Your task to perform on an android device: turn on sleep mode Image 0: 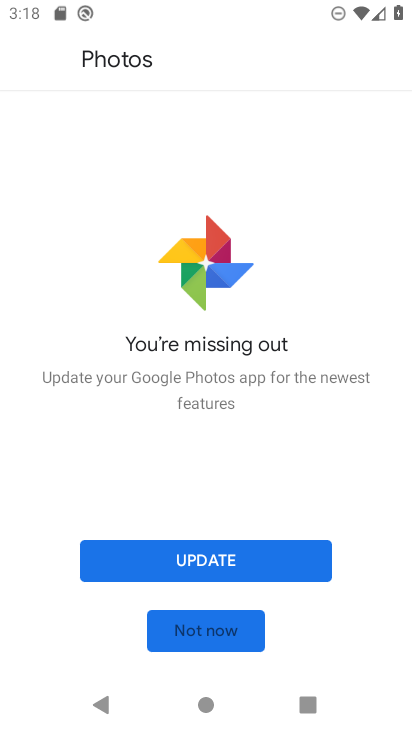
Step 0: press home button
Your task to perform on an android device: turn on sleep mode Image 1: 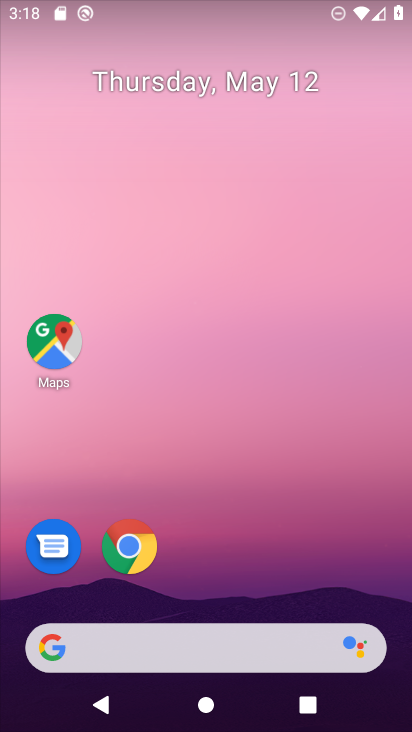
Step 1: drag from (265, 515) to (254, 273)
Your task to perform on an android device: turn on sleep mode Image 2: 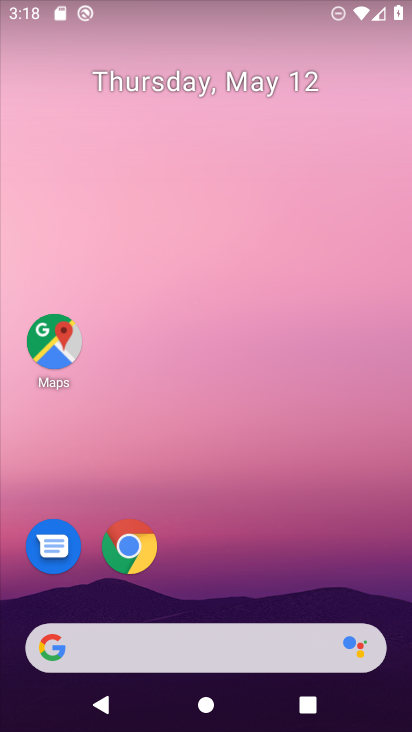
Step 2: drag from (245, 551) to (245, 245)
Your task to perform on an android device: turn on sleep mode Image 3: 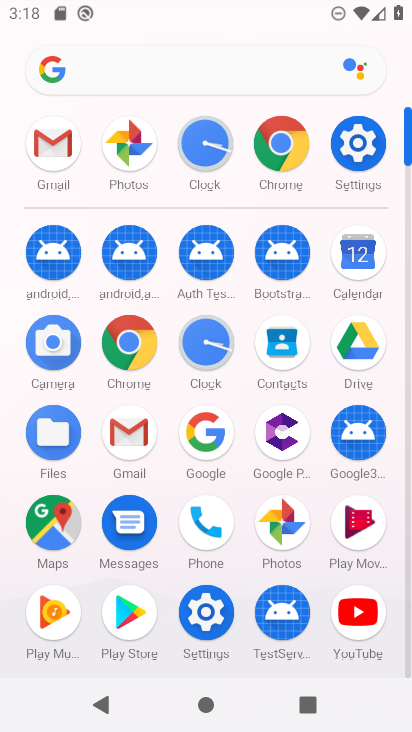
Step 3: click (361, 146)
Your task to perform on an android device: turn on sleep mode Image 4: 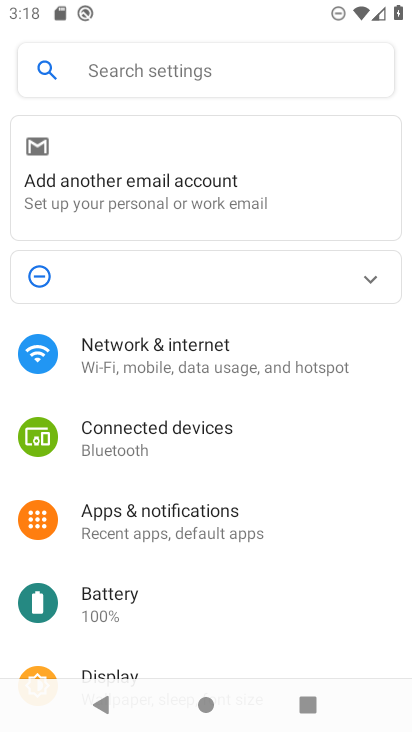
Step 4: task complete